Your task to perform on an android device: Show me popular videos on Youtube Image 0: 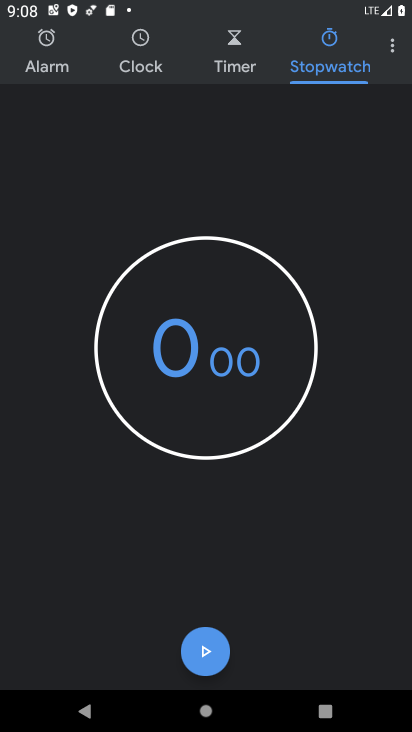
Step 0: press home button
Your task to perform on an android device: Show me popular videos on Youtube Image 1: 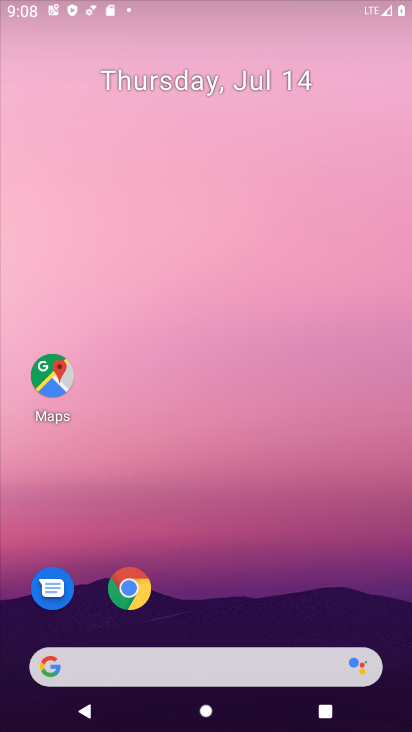
Step 1: drag from (394, 629) to (204, 66)
Your task to perform on an android device: Show me popular videos on Youtube Image 2: 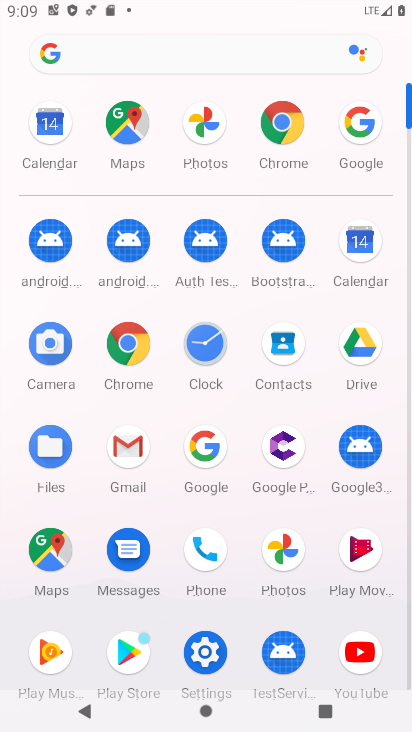
Step 2: click (358, 649)
Your task to perform on an android device: Show me popular videos on Youtube Image 3: 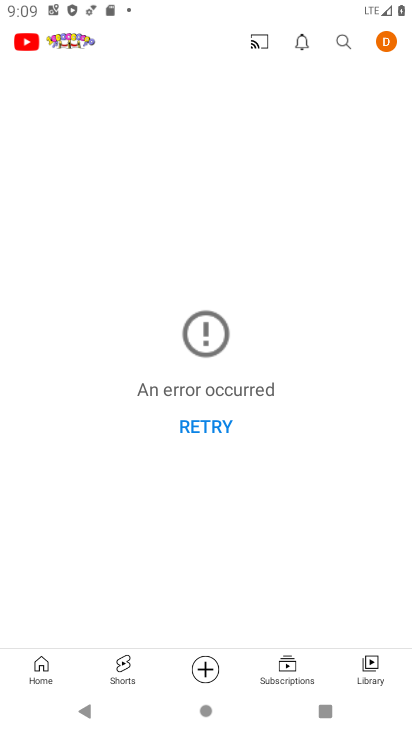
Step 3: click (373, 661)
Your task to perform on an android device: Show me popular videos on Youtube Image 4: 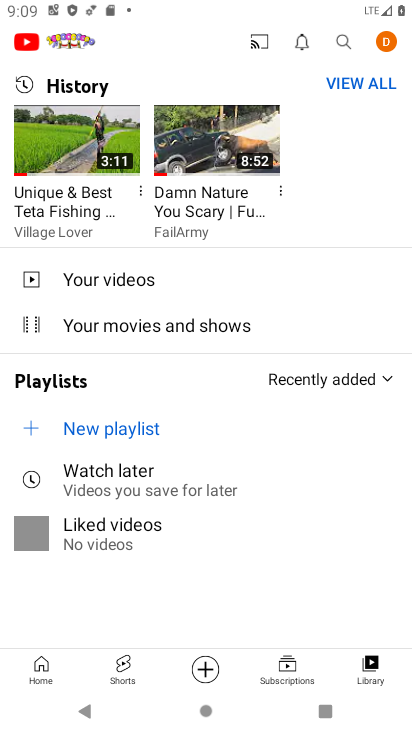
Step 4: task complete